Your task to perform on an android device: Go to accessibility settings Image 0: 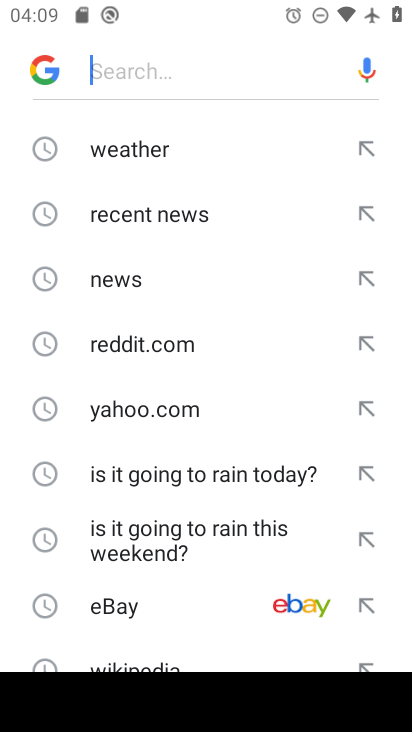
Step 0: press home button
Your task to perform on an android device: Go to accessibility settings Image 1: 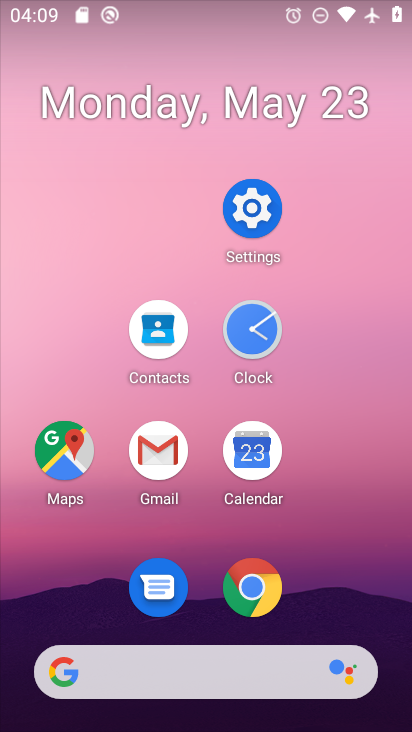
Step 1: click (262, 240)
Your task to perform on an android device: Go to accessibility settings Image 2: 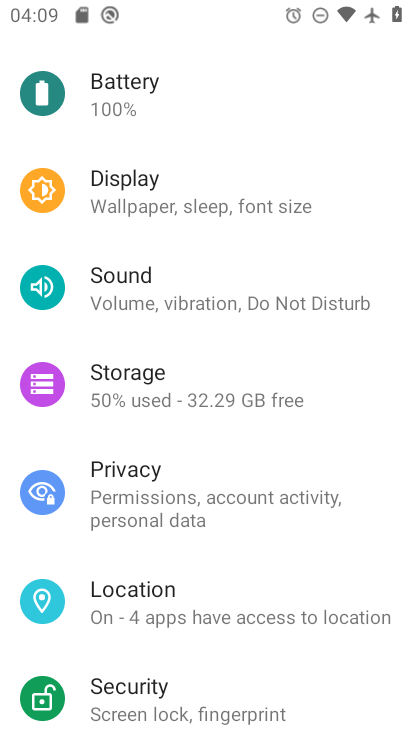
Step 2: drag from (193, 646) to (284, 77)
Your task to perform on an android device: Go to accessibility settings Image 3: 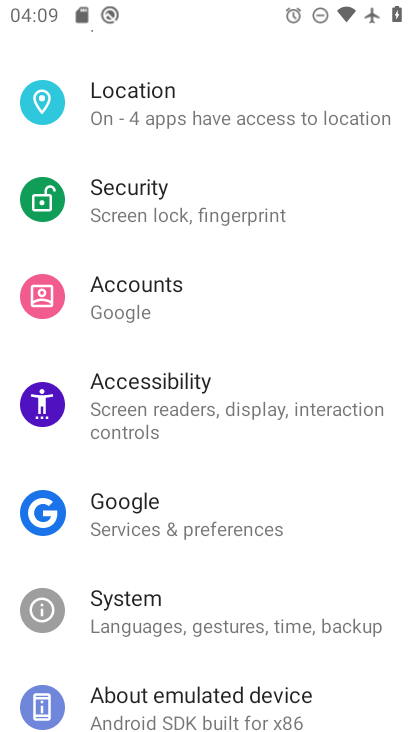
Step 3: click (222, 425)
Your task to perform on an android device: Go to accessibility settings Image 4: 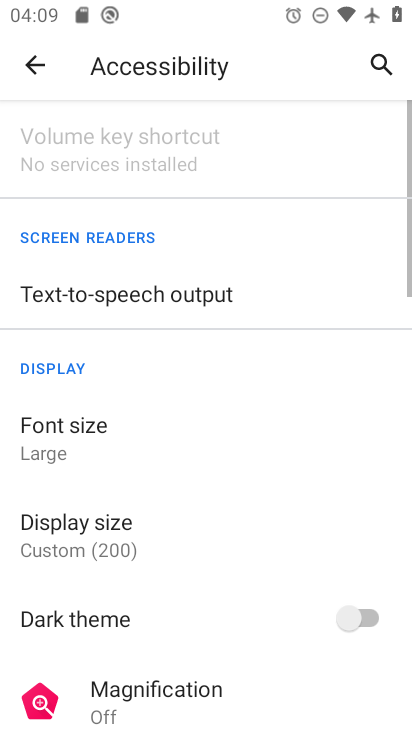
Step 4: task complete